Your task to perform on an android device: Go to Google Image 0: 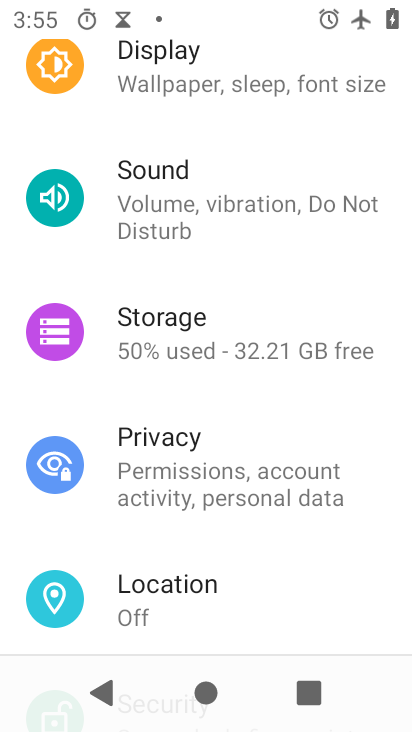
Step 0: press home button
Your task to perform on an android device: Go to Google Image 1: 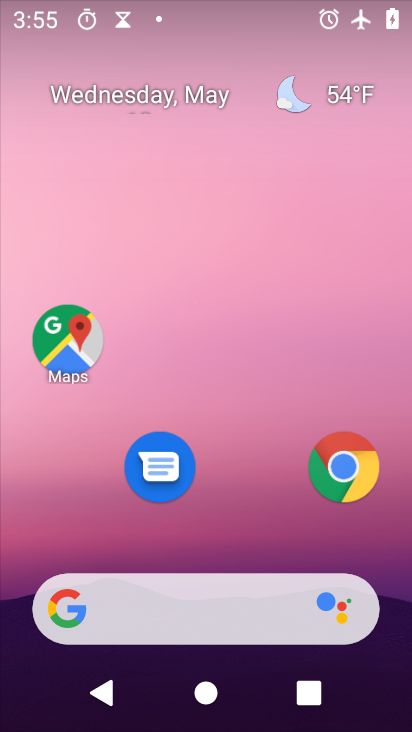
Step 1: drag from (320, 529) to (260, 94)
Your task to perform on an android device: Go to Google Image 2: 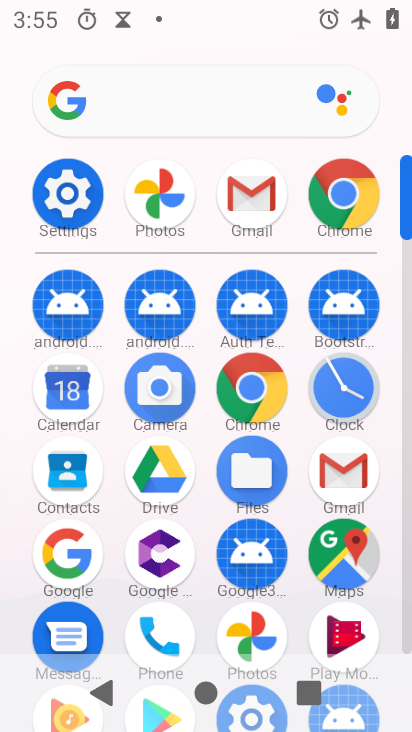
Step 2: click (88, 572)
Your task to perform on an android device: Go to Google Image 3: 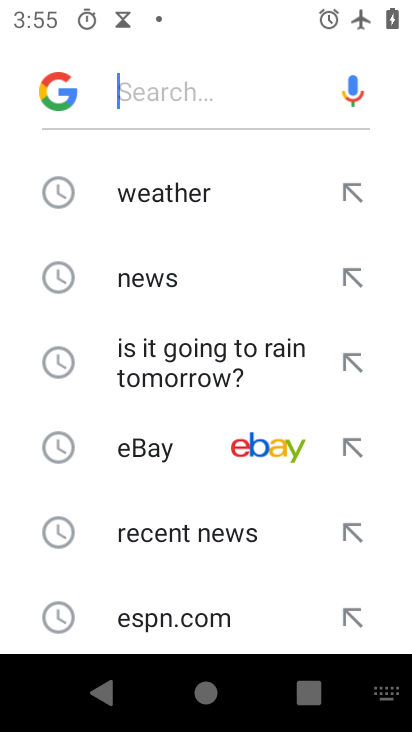
Step 3: task complete